Your task to perform on an android device: Clear the cart on walmart.com. Image 0: 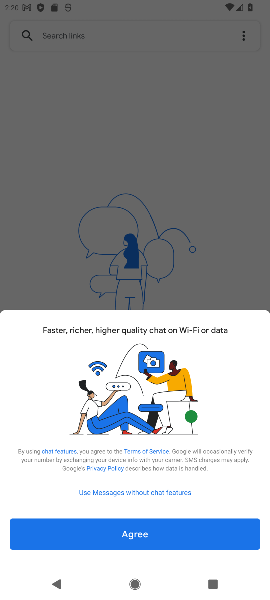
Step 0: press home button
Your task to perform on an android device: Clear the cart on walmart.com. Image 1: 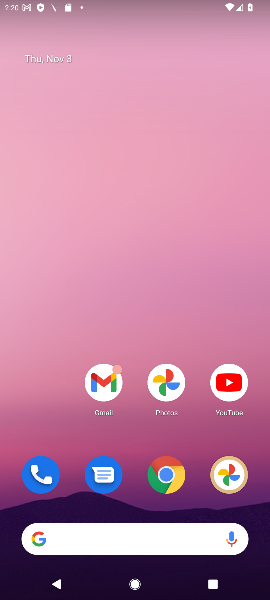
Step 1: click (162, 471)
Your task to perform on an android device: Clear the cart on walmart.com. Image 2: 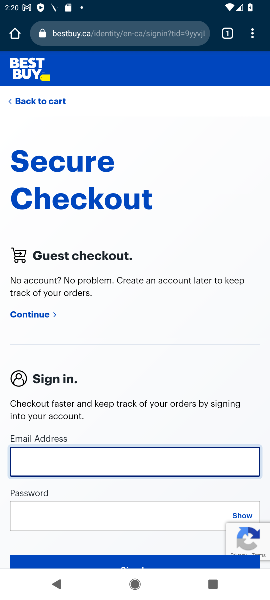
Step 2: click (90, 38)
Your task to perform on an android device: Clear the cart on walmart.com. Image 3: 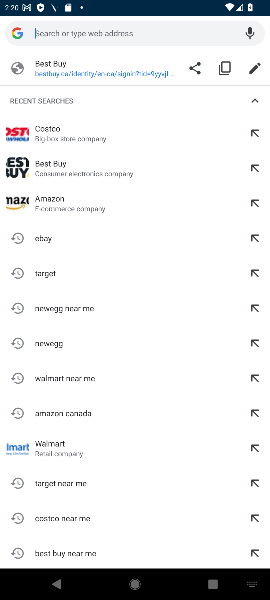
Step 3: click (54, 453)
Your task to perform on an android device: Clear the cart on walmart.com. Image 4: 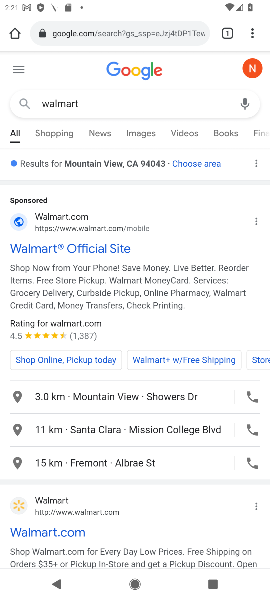
Step 4: click (27, 245)
Your task to perform on an android device: Clear the cart on walmart.com. Image 5: 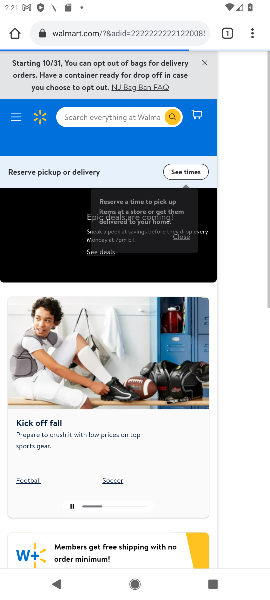
Step 5: click (250, 135)
Your task to perform on an android device: Clear the cart on walmart.com. Image 6: 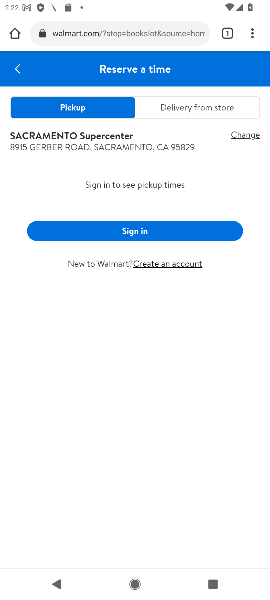
Step 6: task complete